Your task to perform on an android device: turn off picture-in-picture Image 0: 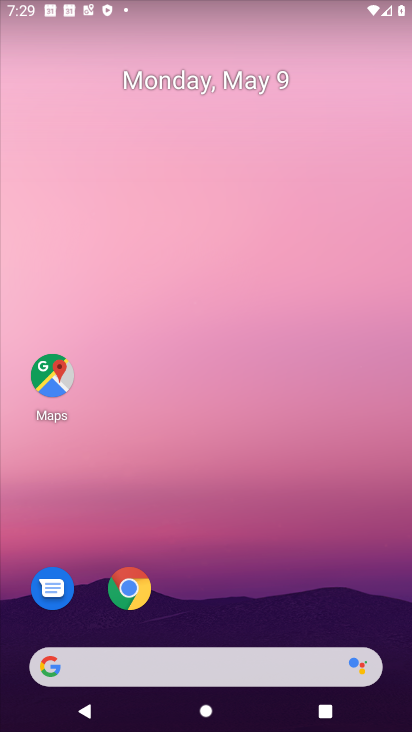
Step 0: click (130, 589)
Your task to perform on an android device: turn off picture-in-picture Image 1: 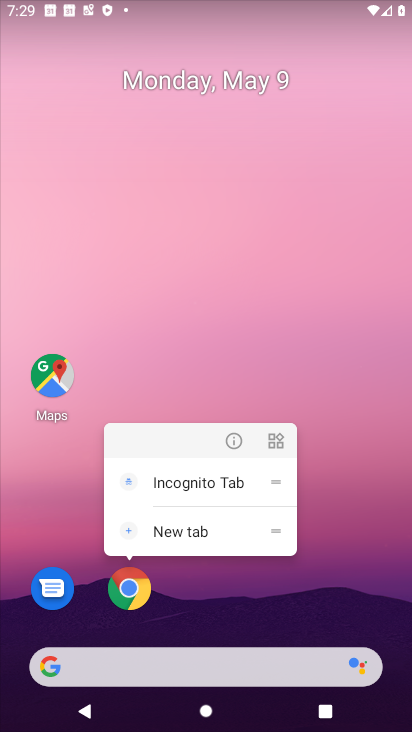
Step 1: click (239, 441)
Your task to perform on an android device: turn off picture-in-picture Image 2: 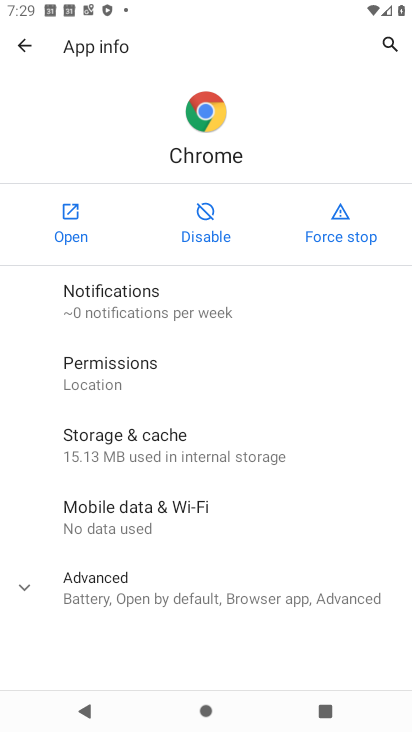
Step 2: click (76, 583)
Your task to perform on an android device: turn off picture-in-picture Image 3: 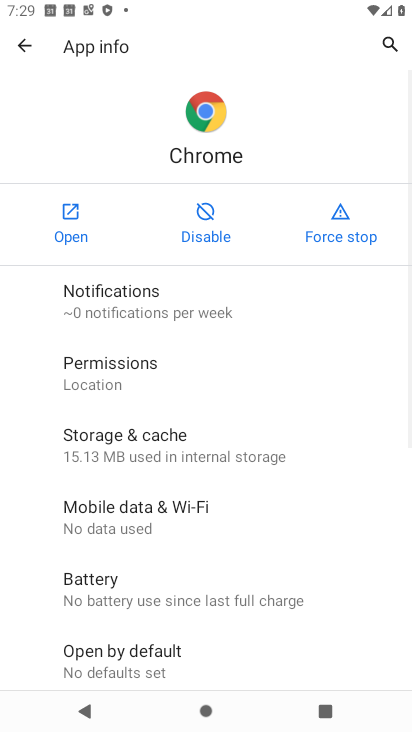
Step 3: drag from (175, 613) to (361, 224)
Your task to perform on an android device: turn off picture-in-picture Image 4: 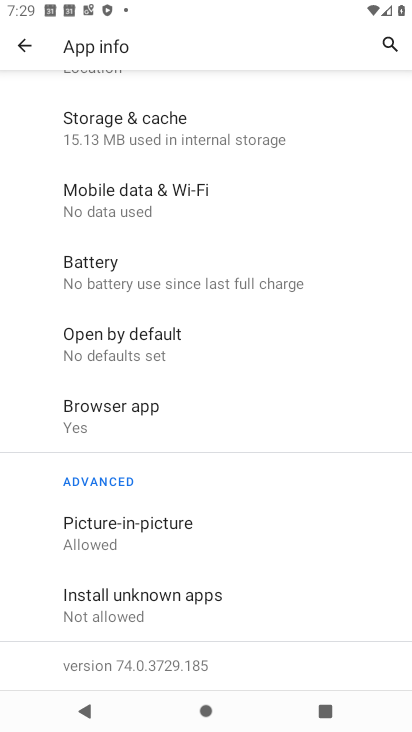
Step 4: click (105, 526)
Your task to perform on an android device: turn off picture-in-picture Image 5: 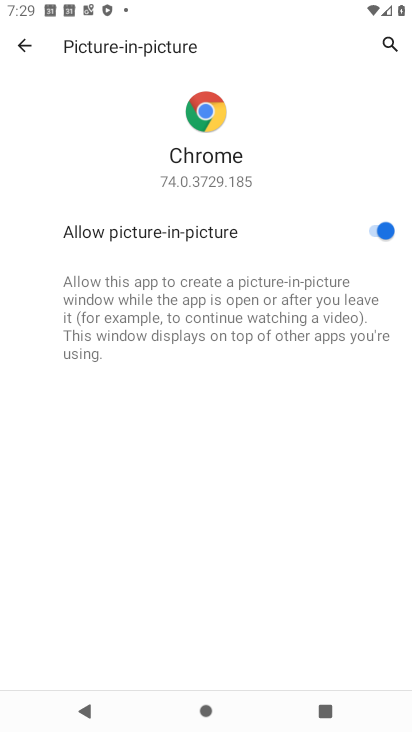
Step 5: click (372, 232)
Your task to perform on an android device: turn off picture-in-picture Image 6: 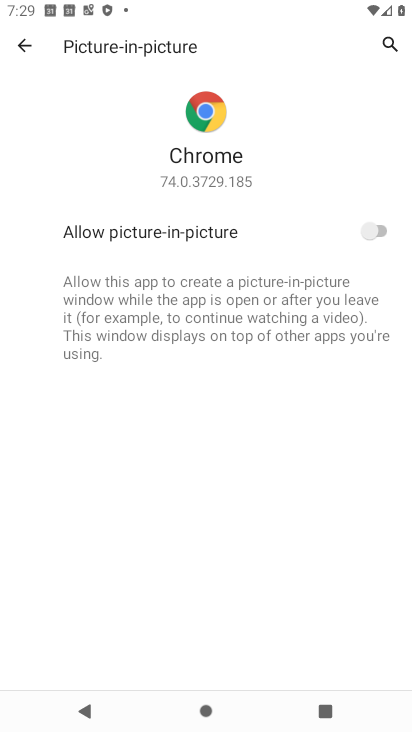
Step 6: task complete